Your task to perform on an android device: turn on the 24-hour format for clock Image 0: 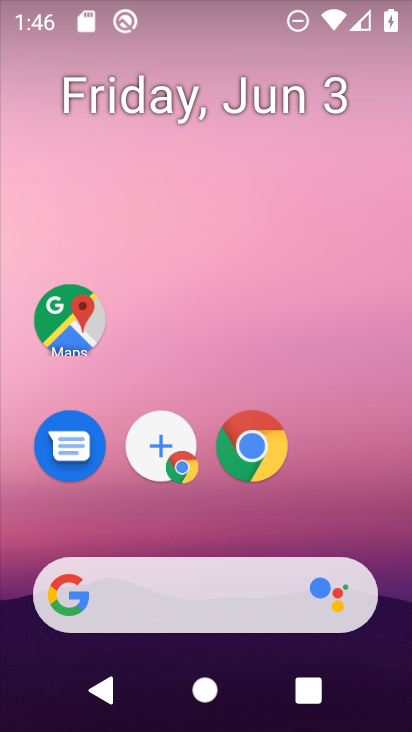
Step 0: drag from (282, 631) to (407, 1)
Your task to perform on an android device: turn on the 24-hour format for clock Image 1: 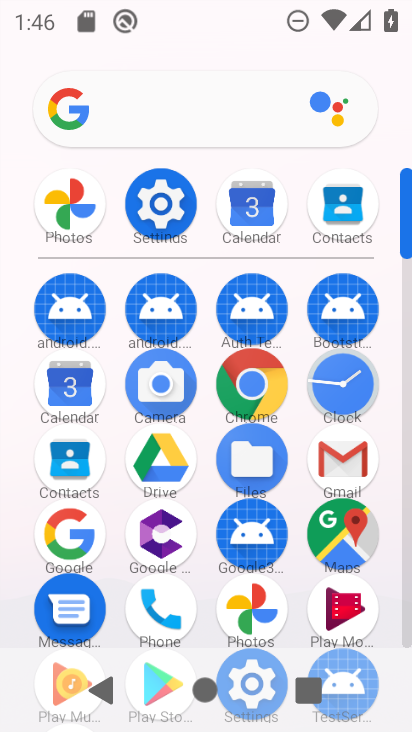
Step 1: click (340, 380)
Your task to perform on an android device: turn on the 24-hour format for clock Image 2: 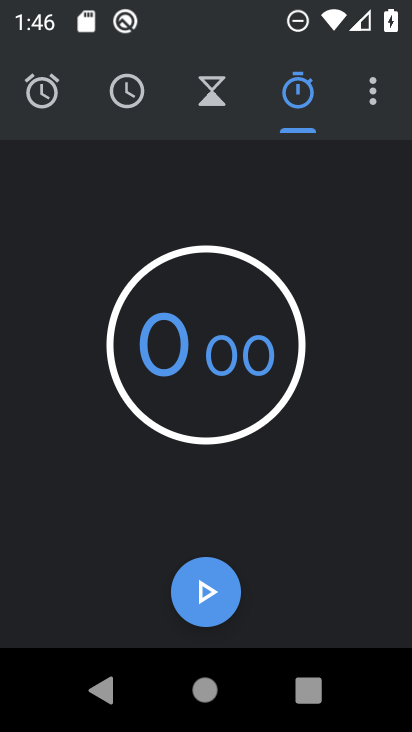
Step 2: click (372, 77)
Your task to perform on an android device: turn on the 24-hour format for clock Image 3: 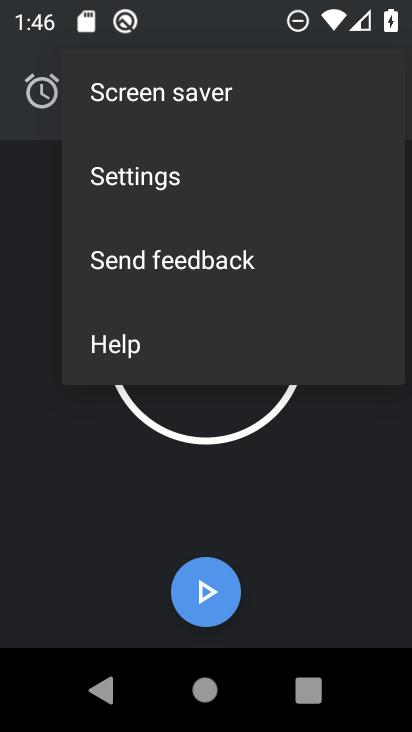
Step 3: click (226, 180)
Your task to perform on an android device: turn on the 24-hour format for clock Image 4: 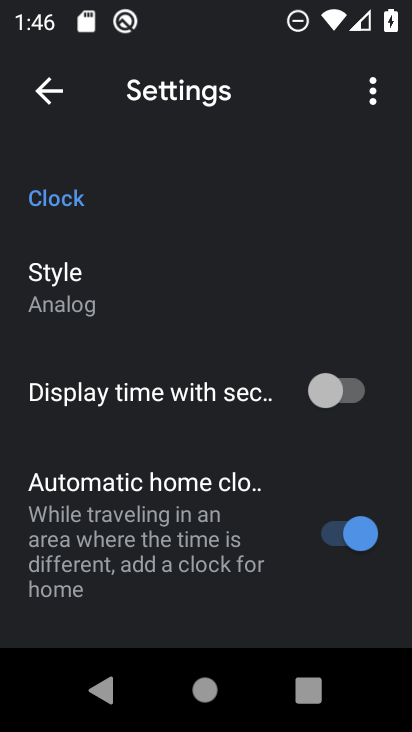
Step 4: drag from (256, 594) to (253, 99)
Your task to perform on an android device: turn on the 24-hour format for clock Image 5: 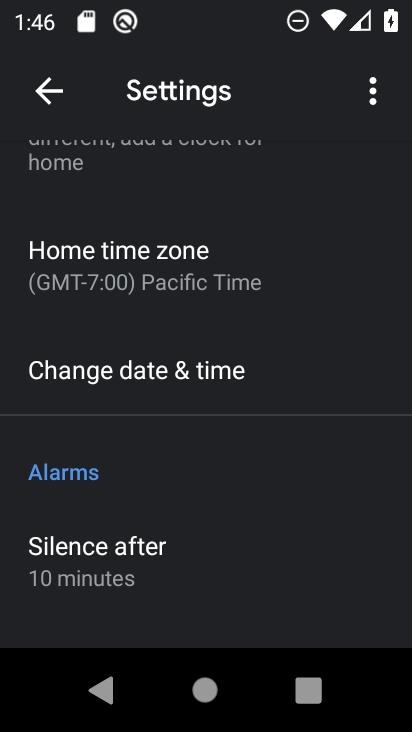
Step 5: click (283, 399)
Your task to perform on an android device: turn on the 24-hour format for clock Image 6: 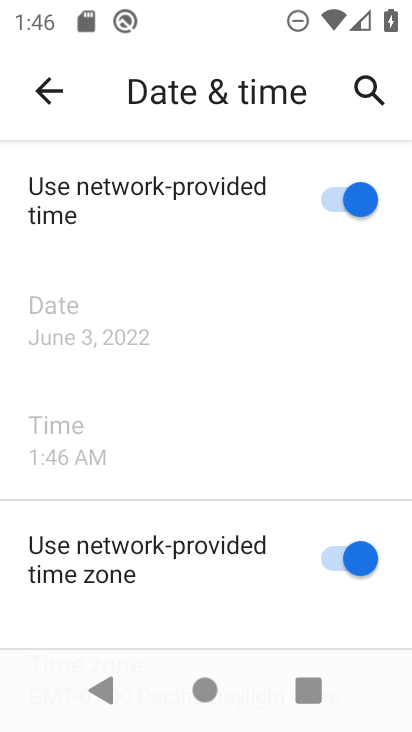
Step 6: drag from (263, 531) to (272, 101)
Your task to perform on an android device: turn on the 24-hour format for clock Image 7: 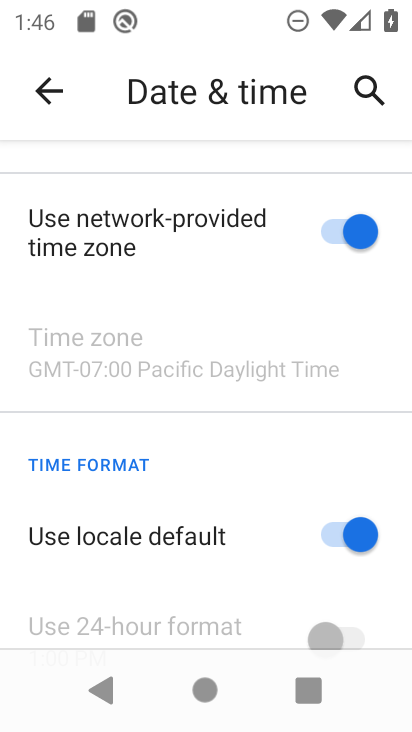
Step 7: click (355, 540)
Your task to perform on an android device: turn on the 24-hour format for clock Image 8: 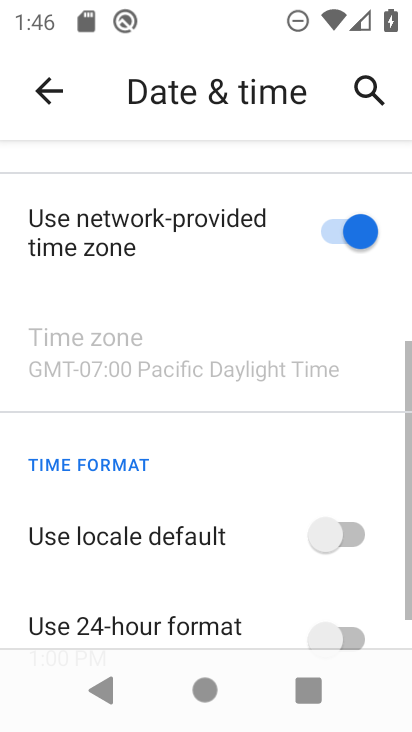
Step 8: click (360, 637)
Your task to perform on an android device: turn on the 24-hour format for clock Image 9: 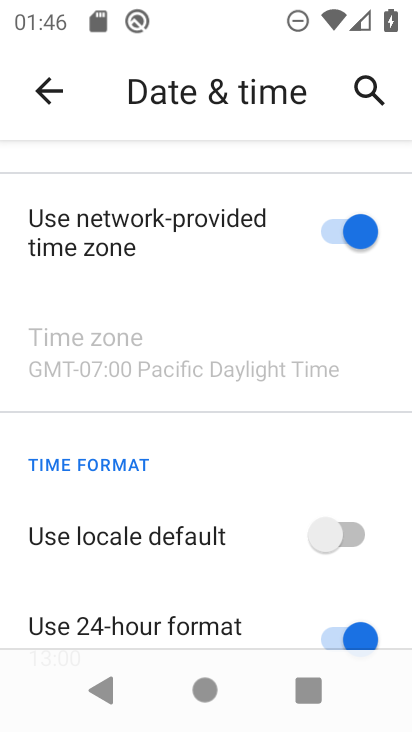
Step 9: task complete